Your task to perform on an android device: Open ESPN.com Image 0: 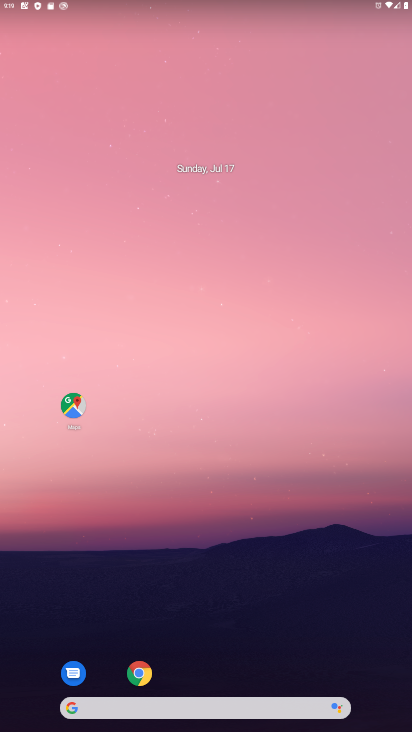
Step 0: drag from (291, 579) to (298, 90)
Your task to perform on an android device: Open ESPN.com Image 1: 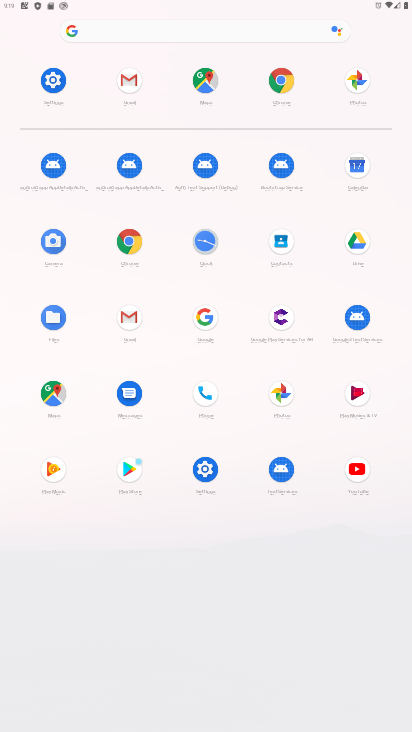
Step 1: click (287, 72)
Your task to perform on an android device: Open ESPN.com Image 2: 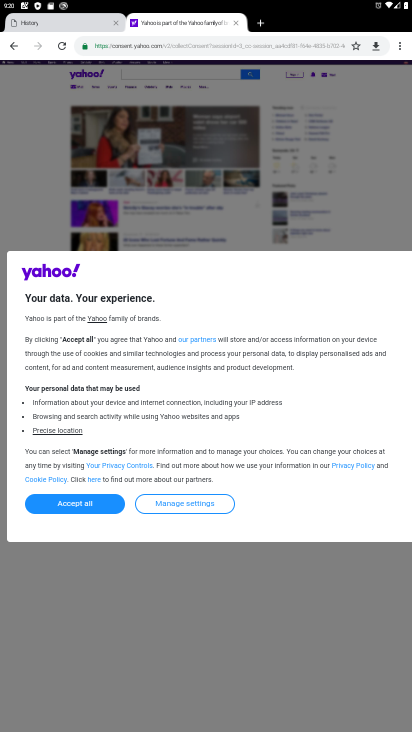
Step 2: click (237, 24)
Your task to perform on an android device: Open ESPN.com Image 3: 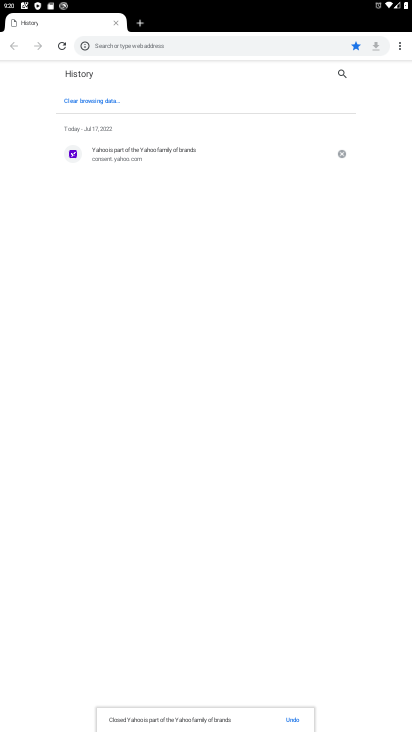
Step 3: click (223, 45)
Your task to perform on an android device: Open ESPN.com Image 4: 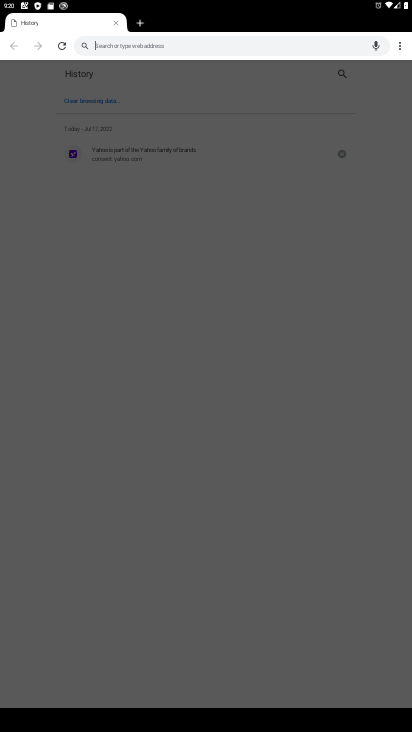
Step 4: type "espn.com"
Your task to perform on an android device: Open ESPN.com Image 5: 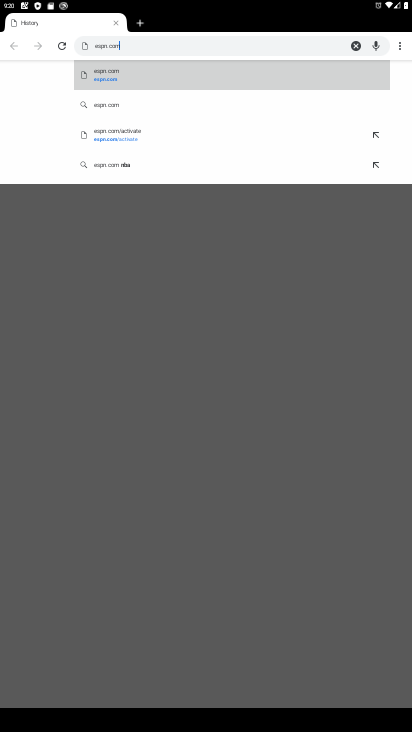
Step 5: click (116, 74)
Your task to perform on an android device: Open ESPN.com Image 6: 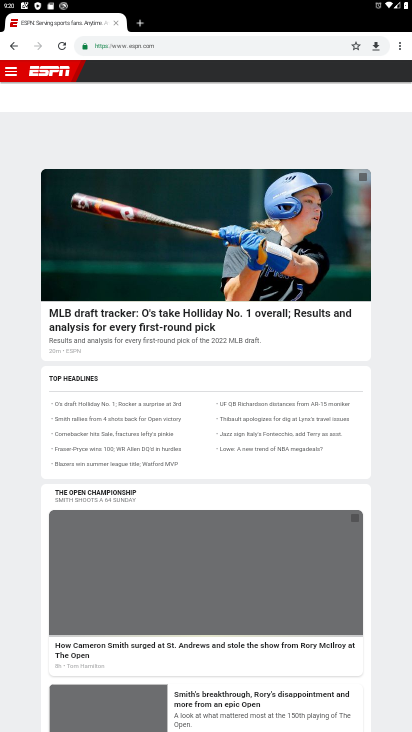
Step 6: task complete